Your task to perform on an android device: turn on location history Image 0: 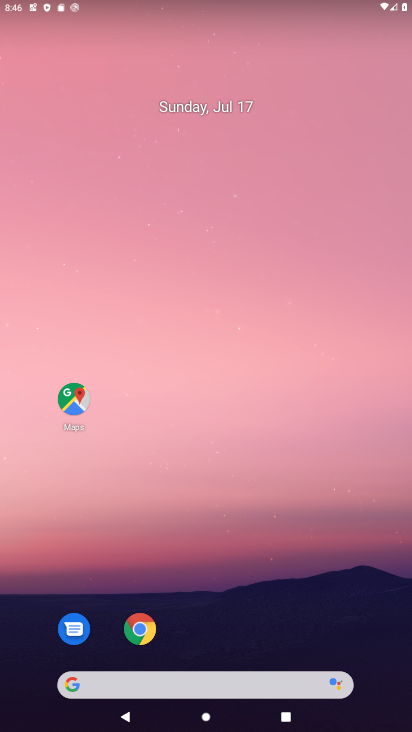
Step 0: drag from (241, 697) to (239, 85)
Your task to perform on an android device: turn on location history Image 1: 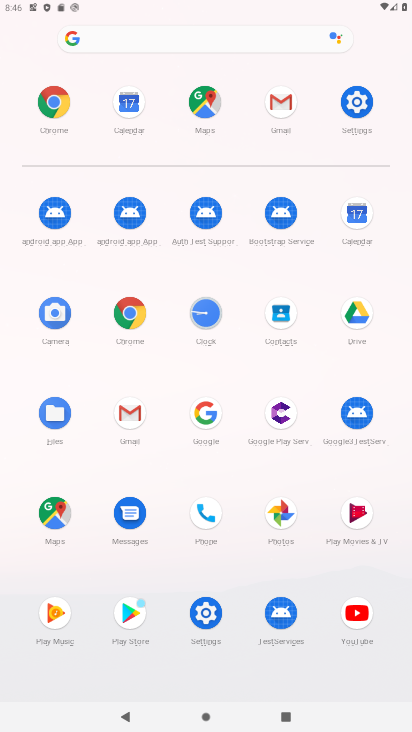
Step 1: click (350, 100)
Your task to perform on an android device: turn on location history Image 2: 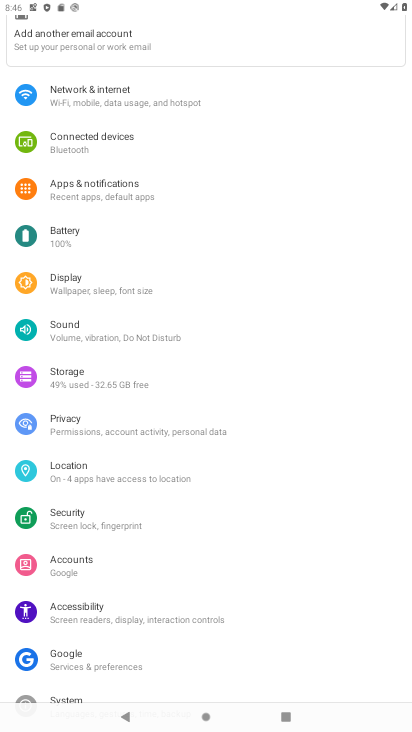
Step 2: click (74, 465)
Your task to perform on an android device: turn on location history Image 3: 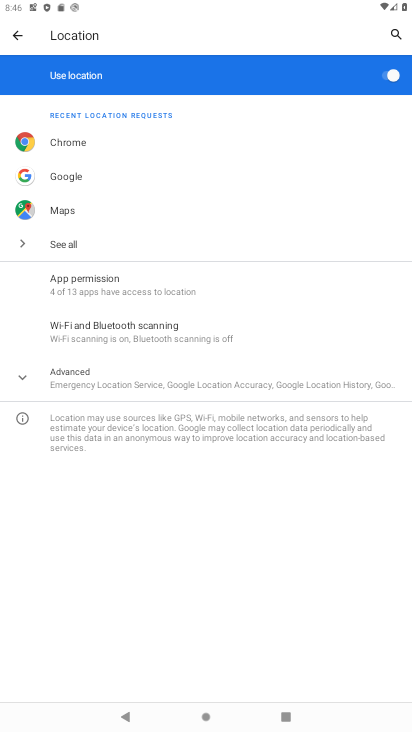
Step 3: click (93, 372)
Your task to perform on an android device: turn on location history Image 4: 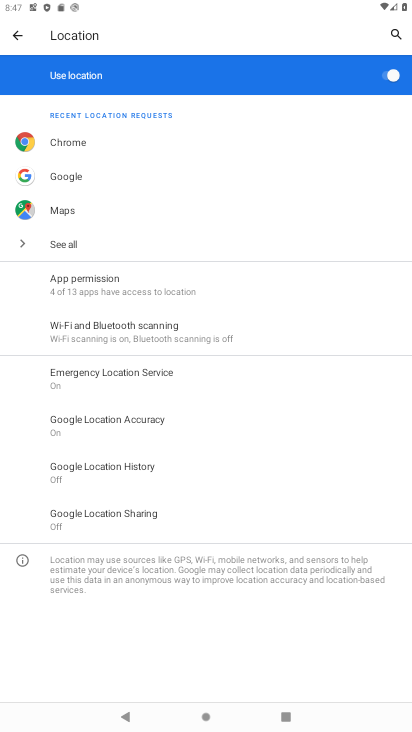
Step 4: click (95, 464)
Your task to perform on an android device: turn on location history Image 5: 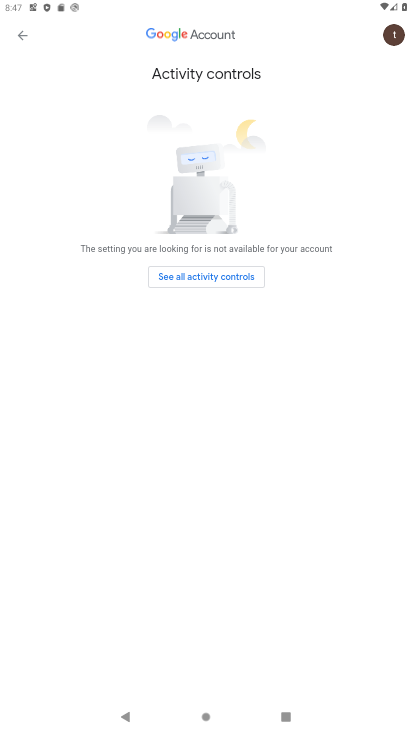
Step 5: click (221, 279)
Your task to perform on an android device: turn on location history Image 6: 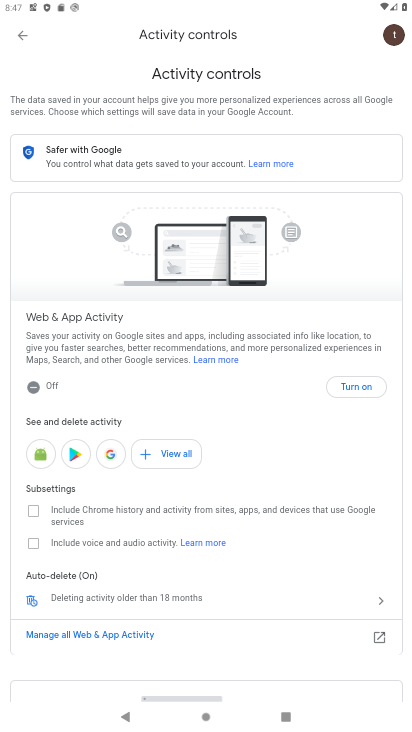
Step 6: drag from (255, 631) to (258, 363)
Your task to perform on an android device: turn on location history Image 7: 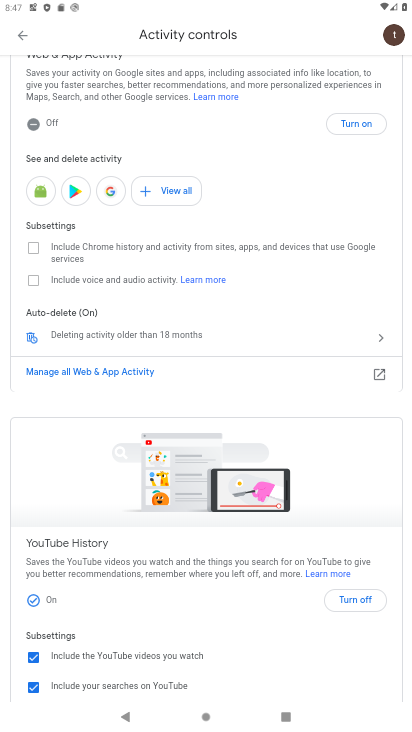
Step 7: click (354, 125)
Your task to perform on an android device: turn on location history Image 8: 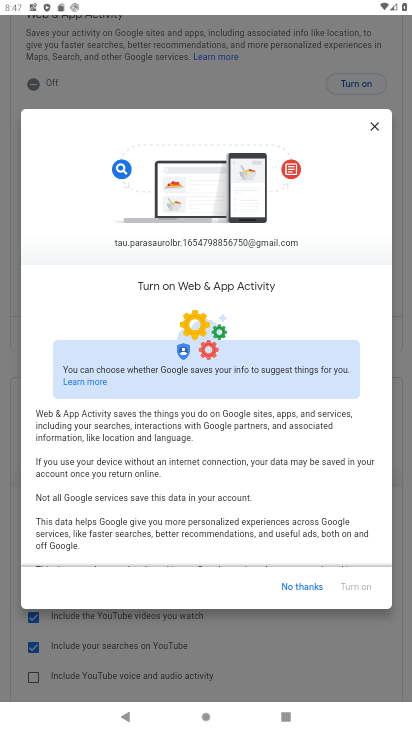
Step 8: drag from (310, 541) to (312, 244)
Your task to perform on an android device: turn on location history Image 9: 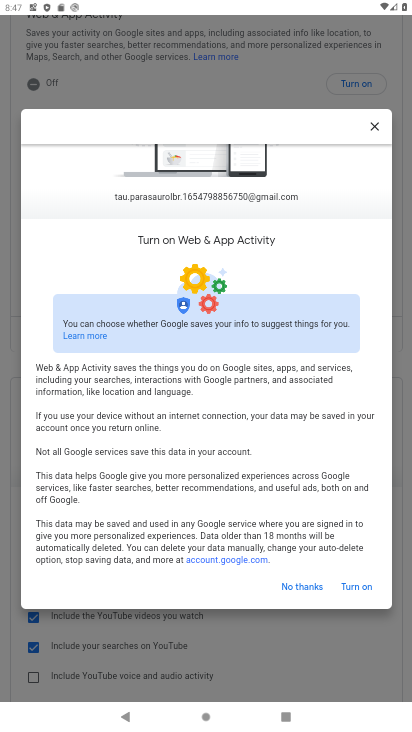
Step 9: click (356, 584)
Your task to perform on an android device: turn on location history Image 10: 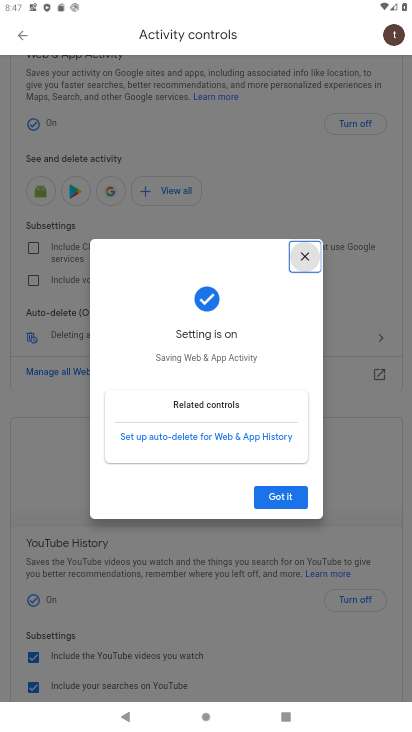
Step 10: click (287, 496)
Your task to perform on an android device: turn on location history Image 11: 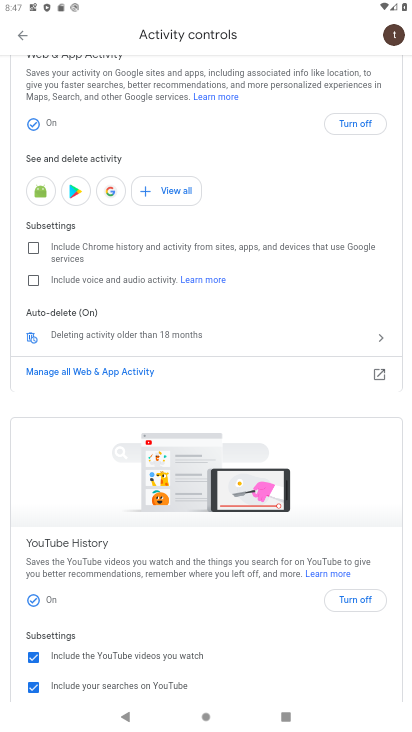
Step 11: task complete